Your task to perform on an android device: add a label to a message in the gmail app Image 0: 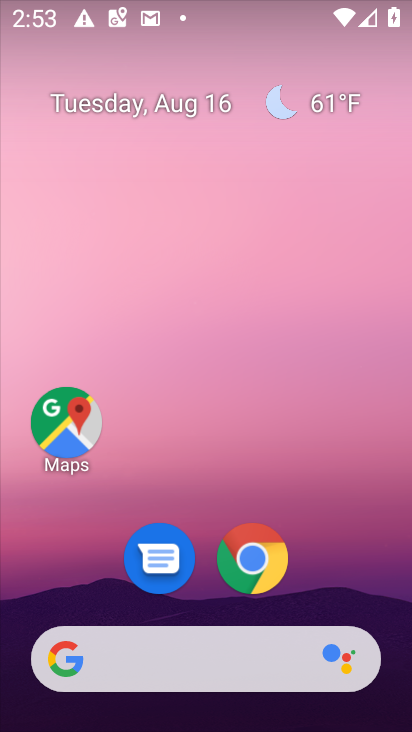
Step 0: drag from (388, 614) to (354, 223)
Your task to perform on an android device: add a label to a message in the gmail app Image 1: 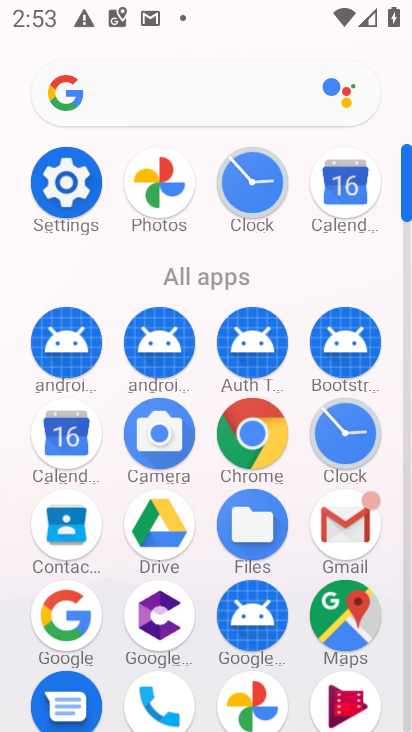
Step 1: click (346, 521)
Your task to perform on an android device: add a label to a message in the gmail app Image 2: 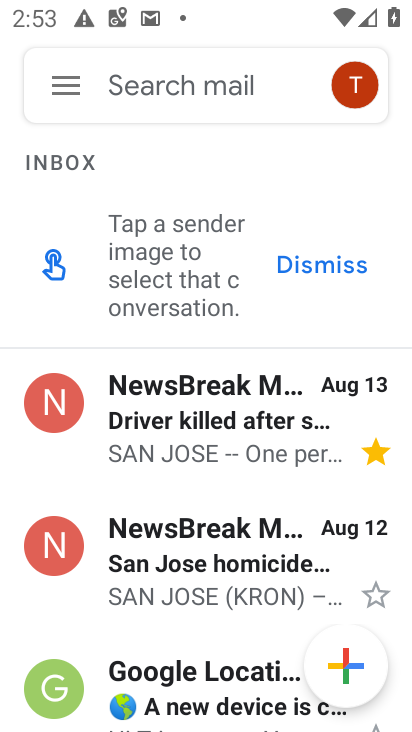
Step 2: drag from (195, 462) to (217, 129)
Your task to perform on an android device: add a label to a message in the gmail app Image 3: 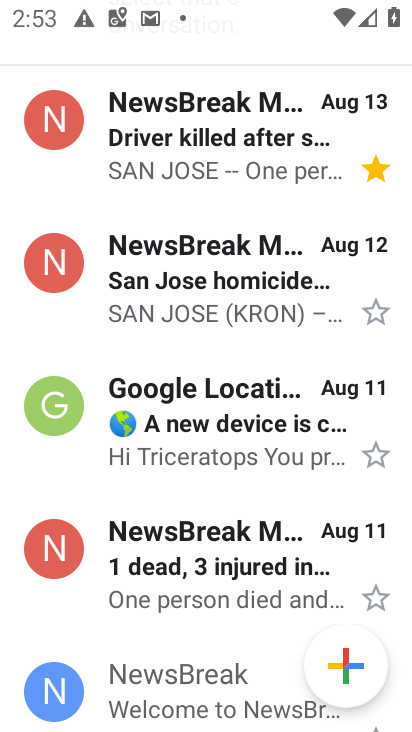
Step 3: click (231, 283)
Your task to perform on an android device: add a label to a message in the gmail app Image 4: 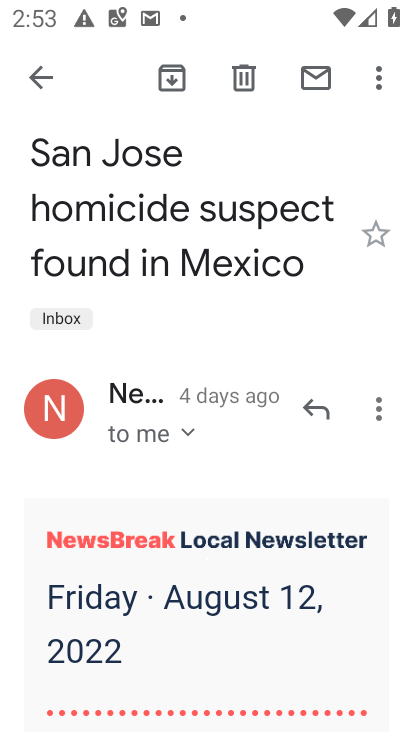
Step 4: click (373, 89)
Your task to perform on an android device: add a label to a message in the gmail app Image 5: 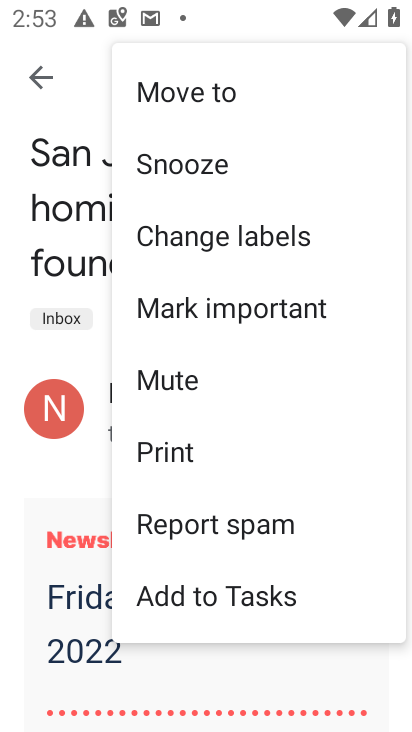
Step 5: click (214, 239)
Your task to perform on an android device: add a label to a message in the gmail app Image 6: 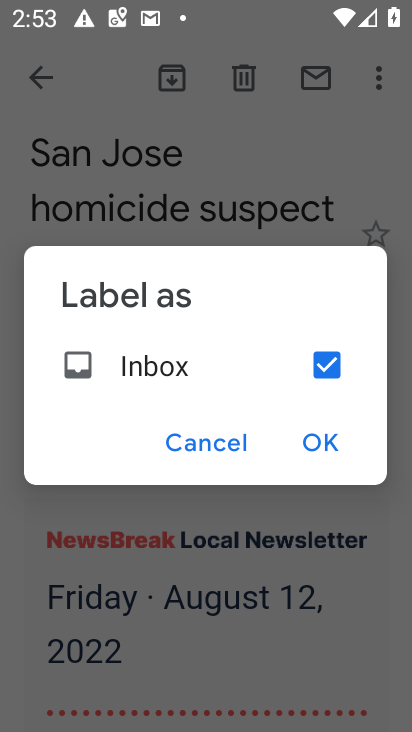
Step 6: click (322, 444)
Your task to perform on an android device: add a label to a message in the gmail app Image 7: 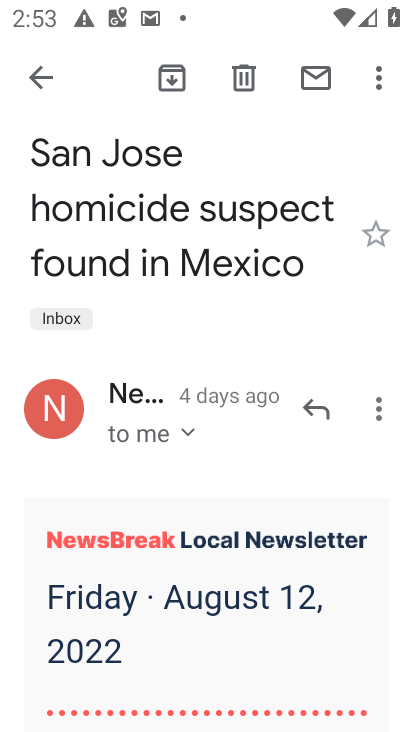
Step 7: task complete